Your task to perform on an android device: Open Youtube and go to "Your channel" Image 0: 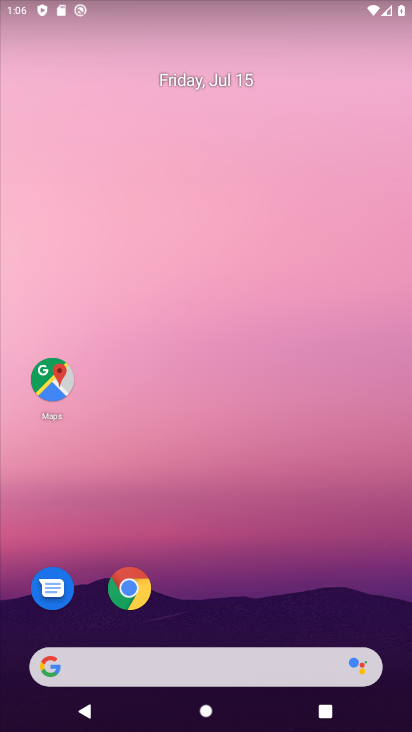
Step 0: drag from (264, 579) to (286, 297)
Your task to perform on an android device: Open Youtube and go to "Your channel" Image 1: 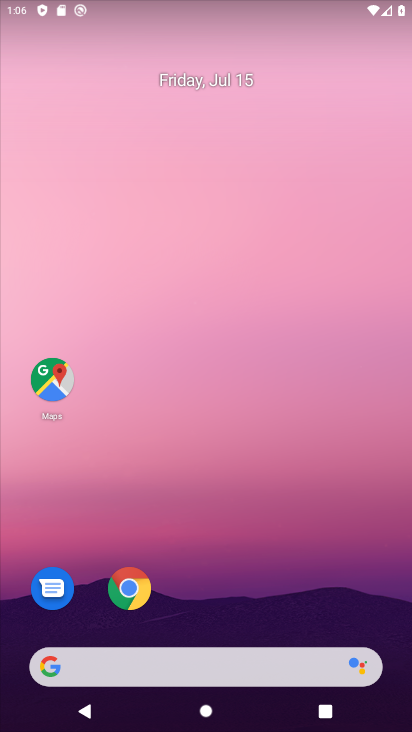
Step 1: drag from (293, 554) to (348, 19)
Your task to perform on an android device: Open Youtube and go to "Your channel" Image 2: 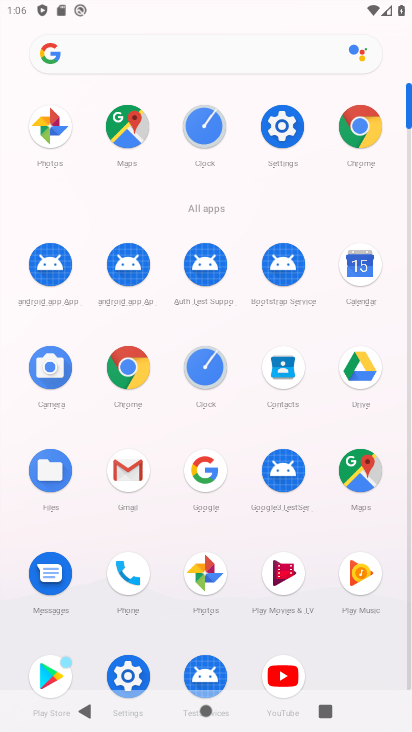
Step 2: click (290, 666)
Your task to perform on an android device: Open Youtube and go to "Your channel" Image 3: 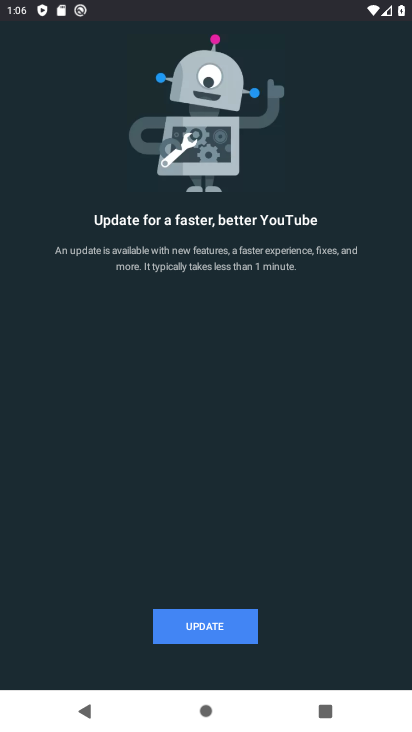
Step 3: click (197, 637)
Your task to perform on an android device: Open Youtube and go to "Your channel" Image 4: 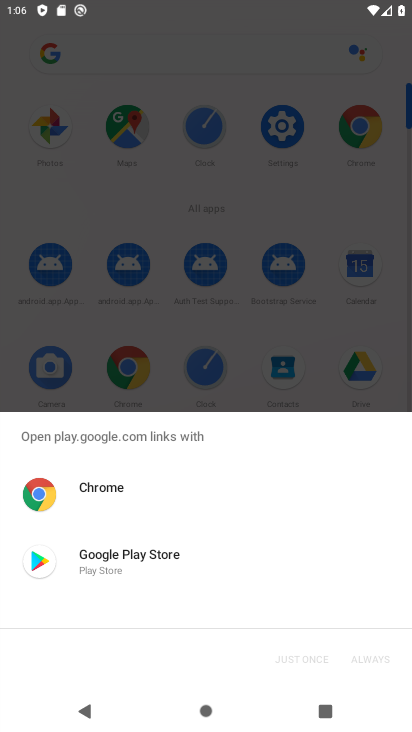
Step 4: click (175, 521)
Your task to perform on an android device: Open Youtube and go to "Your channel" Image 5: 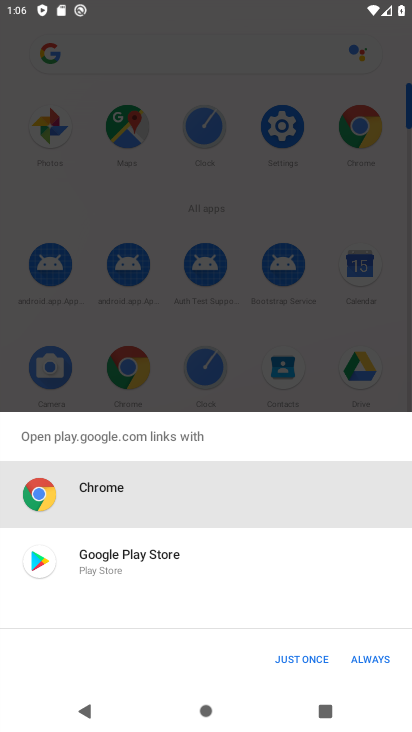
Step 5: click (179, 548)
Your task to perform on an android device: Open Youtube and go to "Your channel" Image 6: 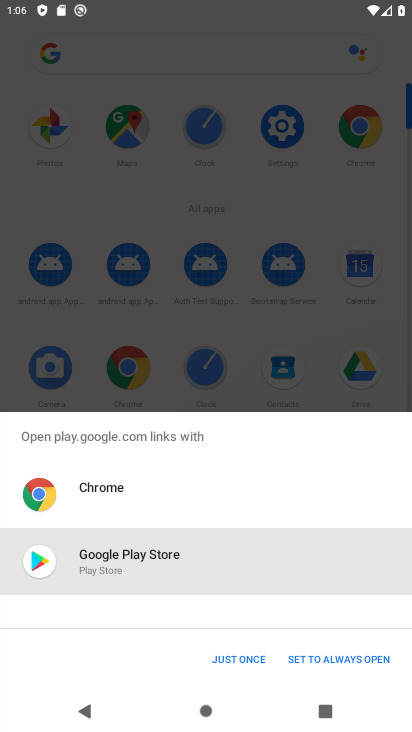
Step 6: click (223, 656)
Your task to perform on an android device: Open Youtube and go to "Your channel" Image 7: 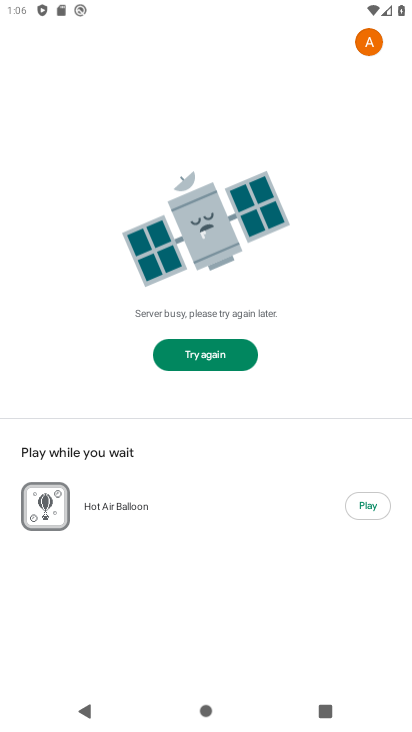
Step 7: click (196, 346)
Your task to perform on an android device: Open Youtube and go to "Your channel" Image 8: 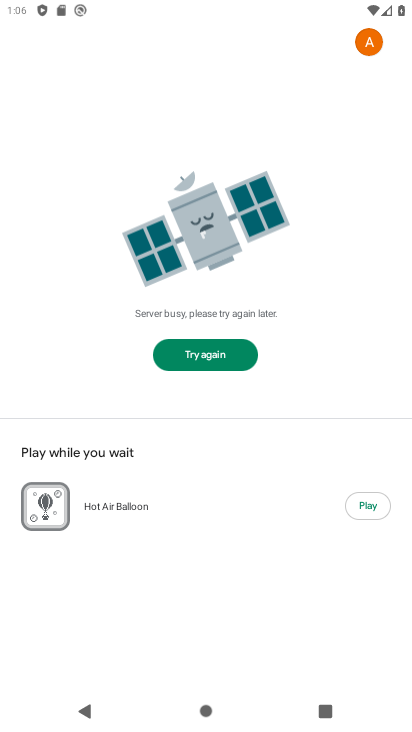
Step 8: task complete